Your task to perform on an android device: Open notification settings Image 0: 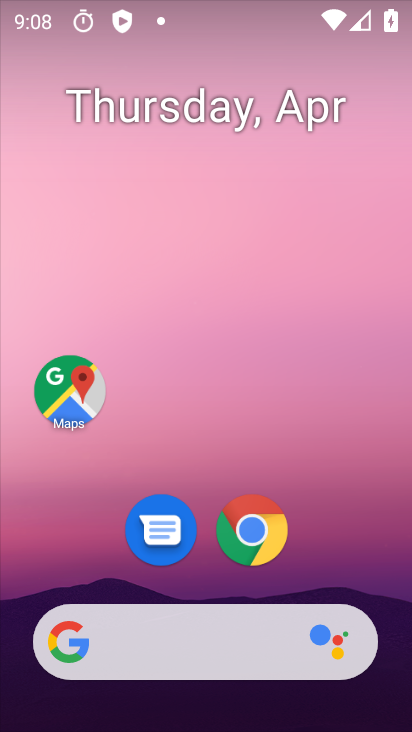
Step 0: drag from (331, 556) to (343, 64)
Your task to perform on an android device: Open notification settings Image 1: 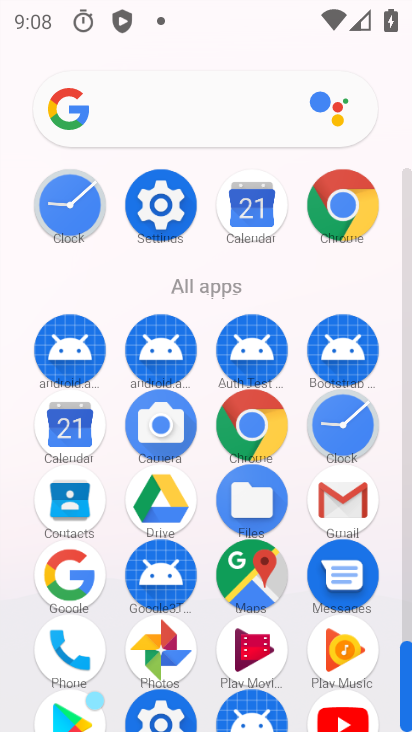
Step 1: click (167, 207)
Your task to perform on an android device: Open notification settings Image 2: 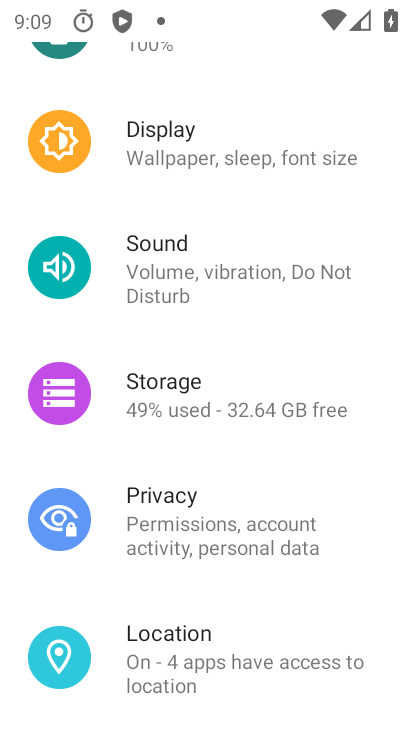
Step 2: drag from (276, 143) to (274, 476)
Your task to perform on an android device: Open notification settings Image 3: 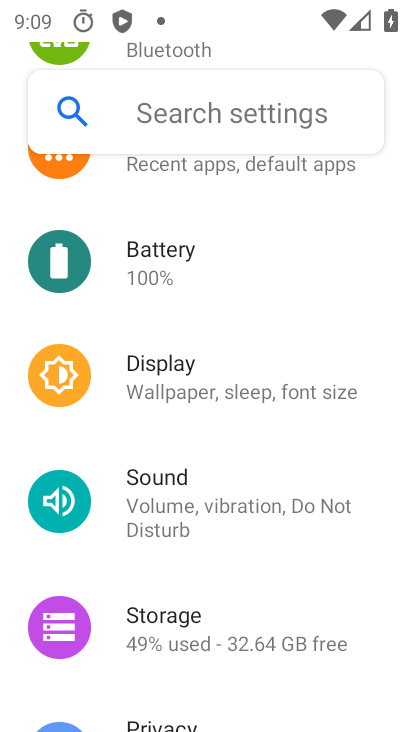
Step 3: drag from (287, 297) to (267, 568)
Your task to perform on an android device: Open notification settings Image 4: 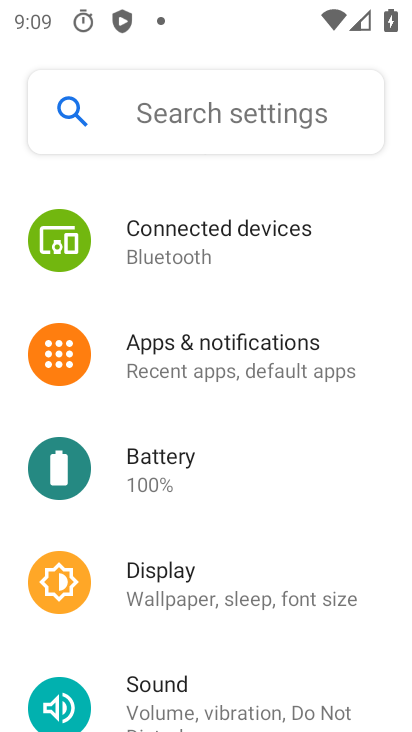
Step 4: click (247, 363)
Your task to perform on an android device: Open notification settings Image 5: 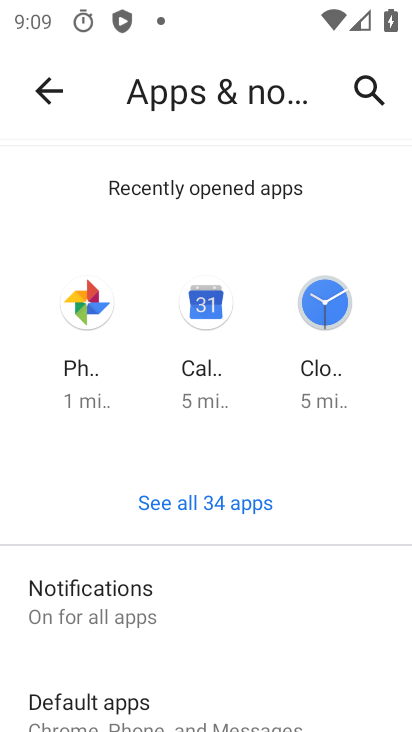
Step 5: click (77, 599)
Your task to perform on an android device: Open notification settings Image 6: 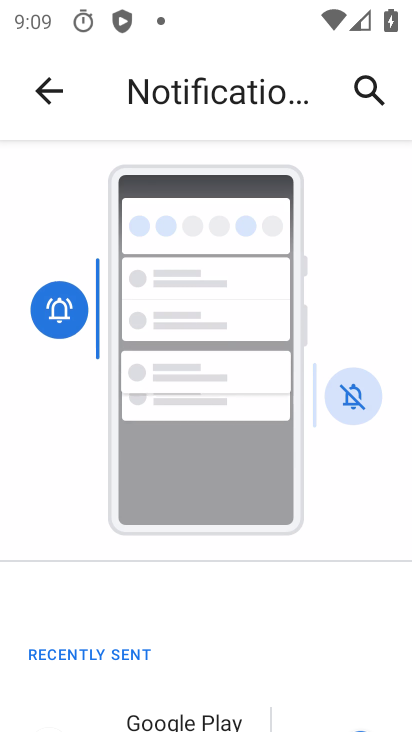
Step 6: task complete